Your task to perform on an android device: Open CNN.com Image 0: 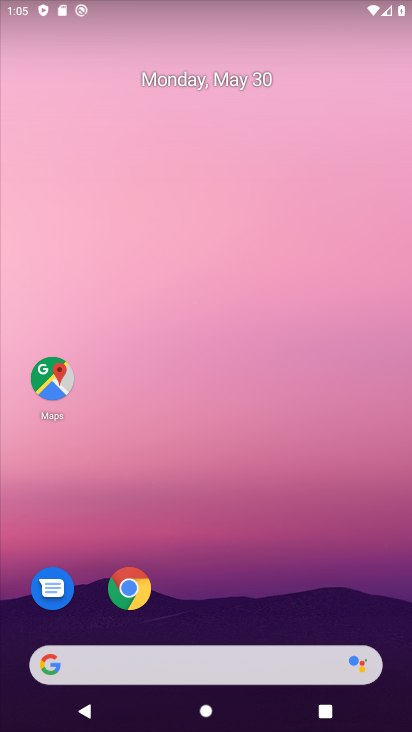
Step 0: click (128, 591)
Your task to perform on an android device: Open CNN.com Image 1: 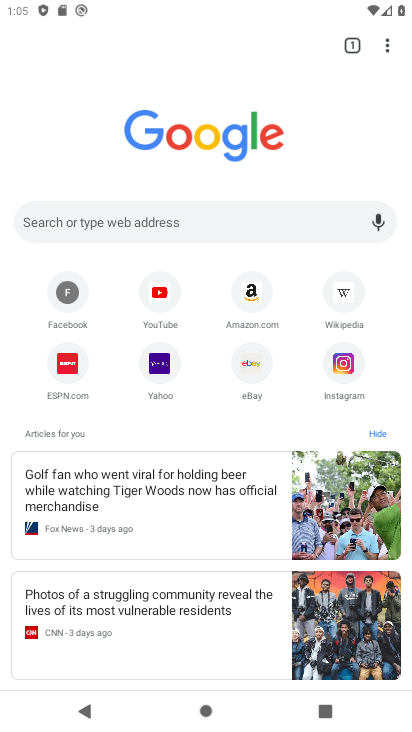
Step 1: click (113, 221)
Your task to perform on an android device: Open CNN.com Image 2: 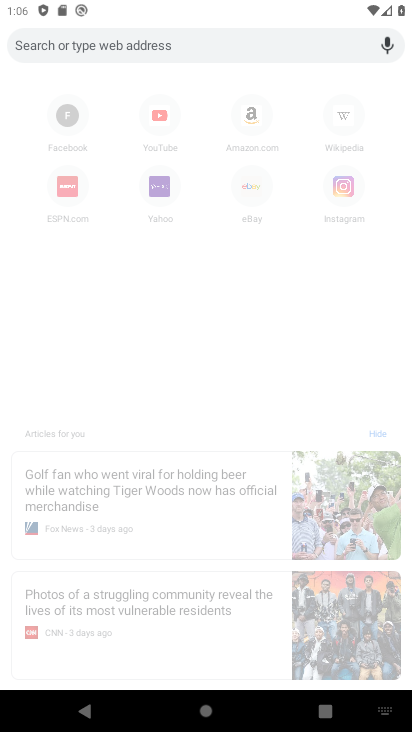
Step 2: type "cnn.com"
Your task to perform on an android device: Open CNN.com Image 3: 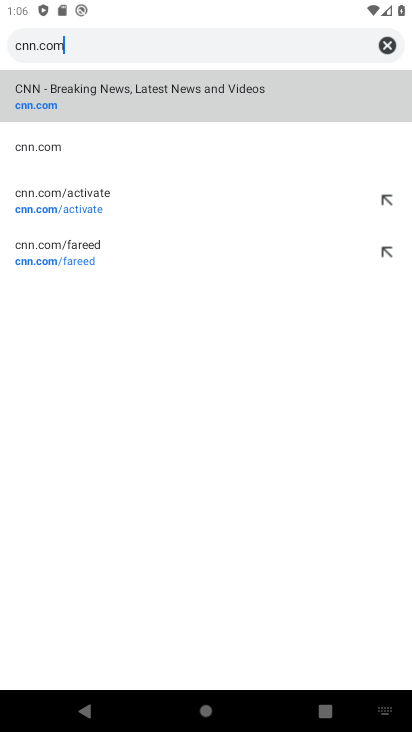
Step 3: click (57, 87)
Your task to perform on an android device: Open CNN.com Image 4: 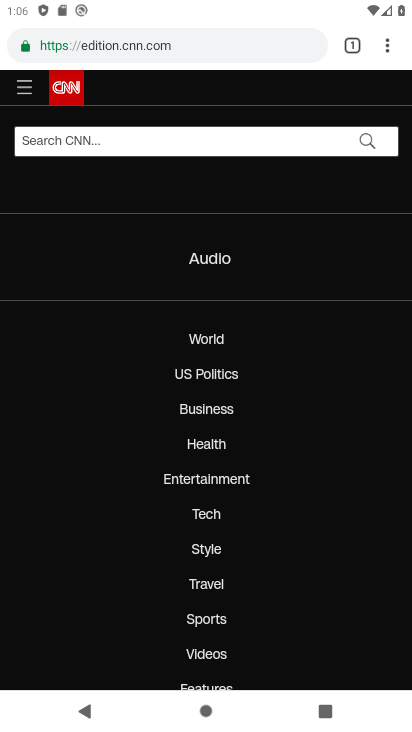
Step 4: task complete